Your task to perform on an android device: open a bookmark in the chrome app Image 0: 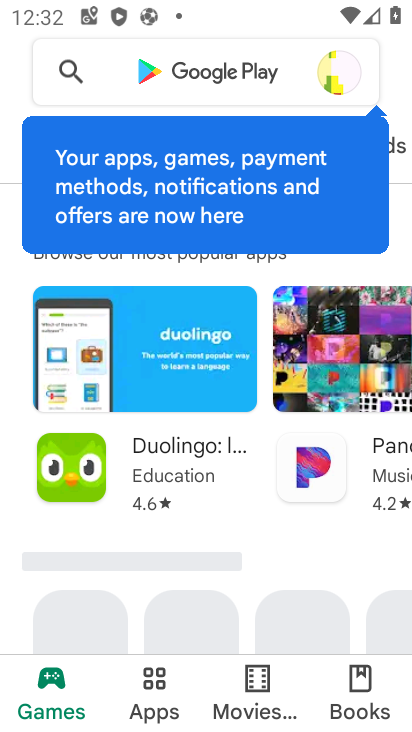
Step 0: press home button
Your task to perform on an android device: open a bookmark in the chrome app Image 1: 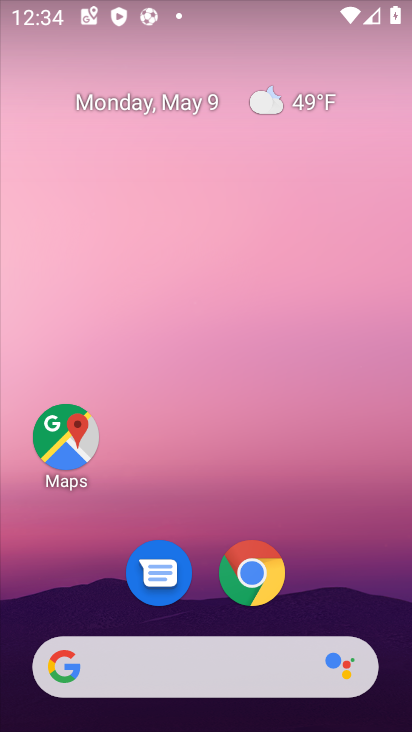
Step 1: click (250, 581)
Your task to perform on an android device: open a bookmark in the chrome app Image 2: 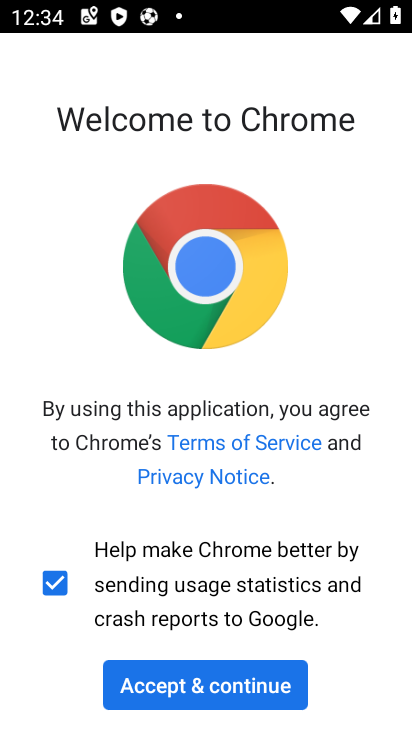
Step 2: click (270, 681)
Your task to perform on an android device: open a bookmark in the chrome app Image 3: 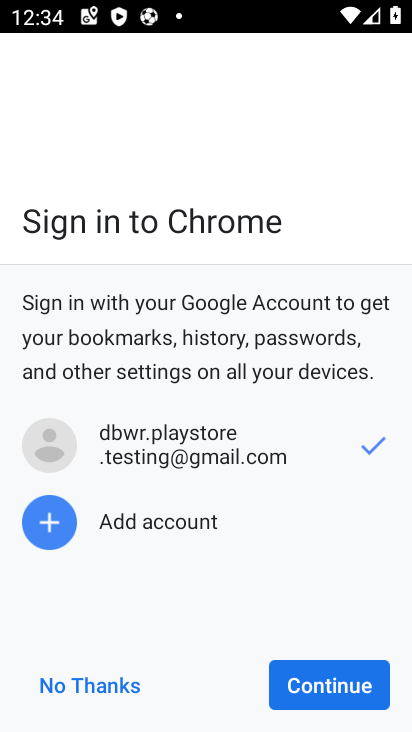
Step 3: click (311, 684)
Your task to perform on an android device: open a bookmark in the chrome app Image 4: 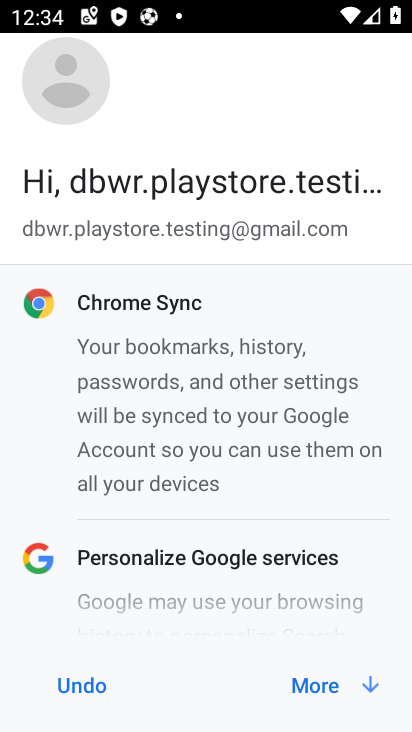
Step 4: click (311, 684)
Your task to perform on an android device: open a bookmark in the chrome app Image 5: 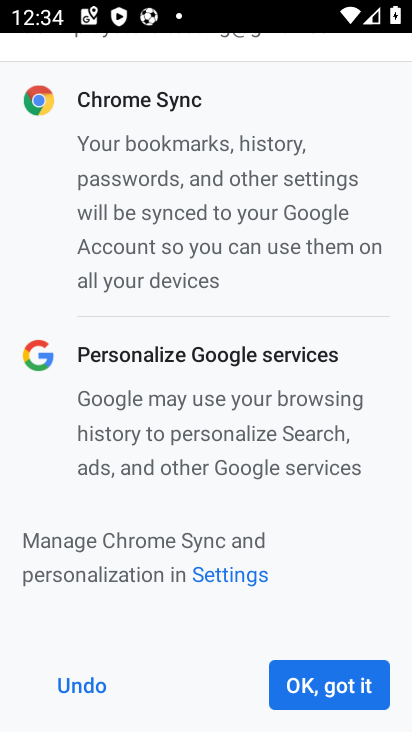
Step 5: click (327, 685)
Your task to perform on an android device: open a bookmark in the chrome app Image 6: 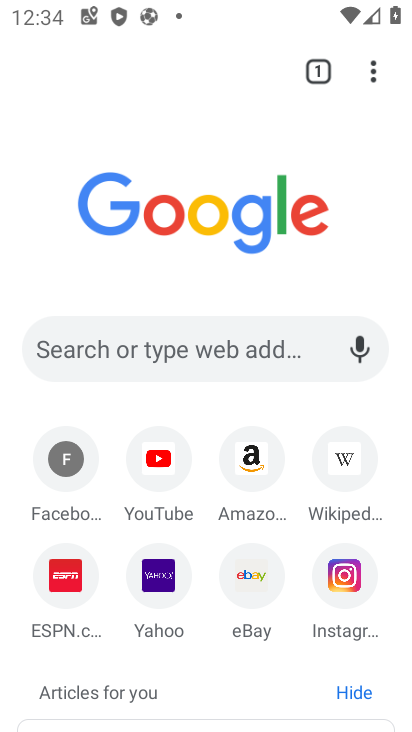
Step 6: click (371, 61)
Your task to perform on an android device: open a bookmark in the chrome app Image 7: 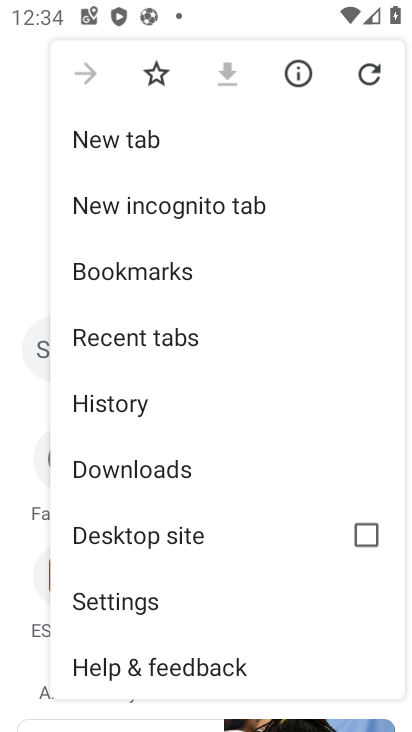
Step 7: click (120, 277)
Your task to perform on an android device: open a bookmark in the chrome app Image 8: 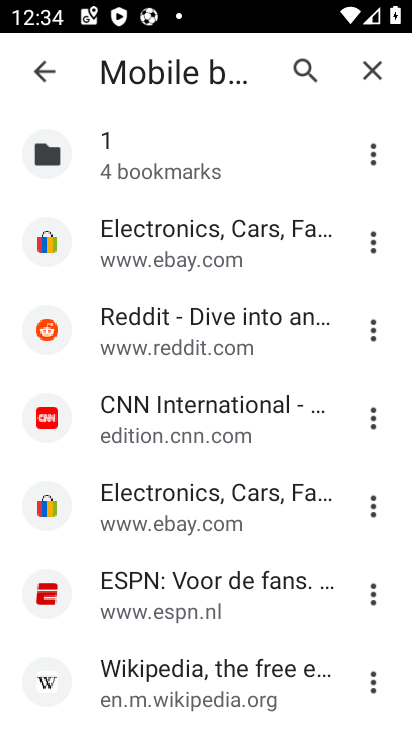
Step 8: task complete